Your task to perform on an android device: change the clock display to show seconds Image 0: 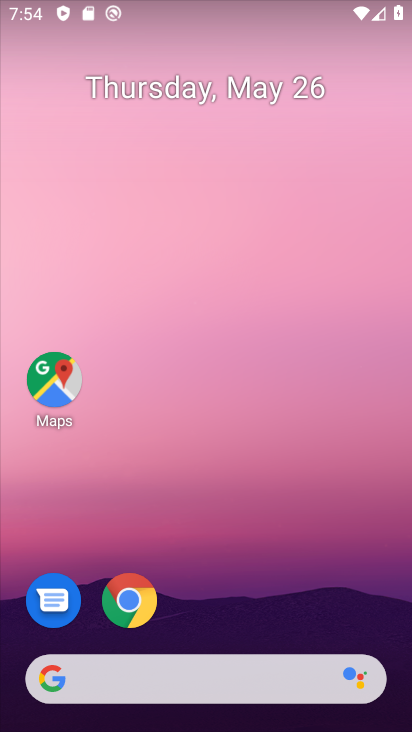
Step 0: click (180, 667)
Your task to perform on an android device: change the clock display to show seconds Image 1: 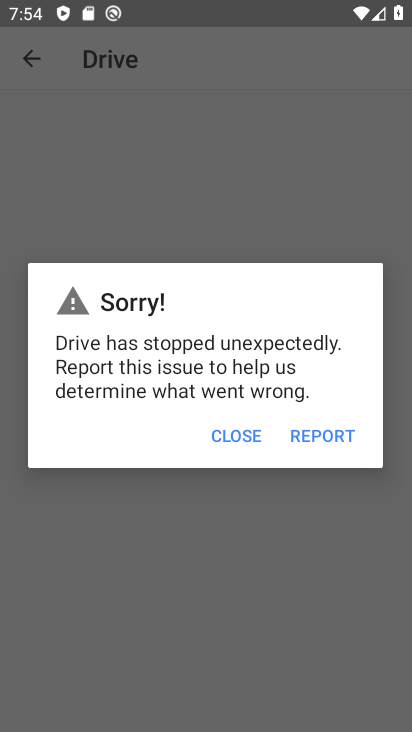
Step 1: press home button
Your task to perform on an android device: change the clock display to show seconds Image 2: 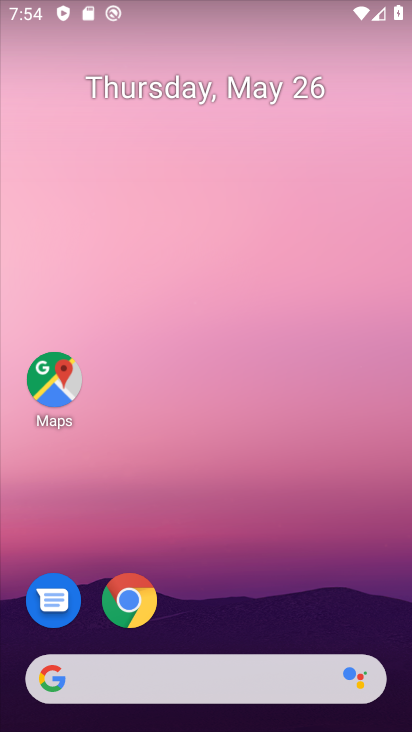
Step 2: drag from (293, 604) to (224, 75)
Your task to perform on an android device: change the clock display to show seconds Image 3: 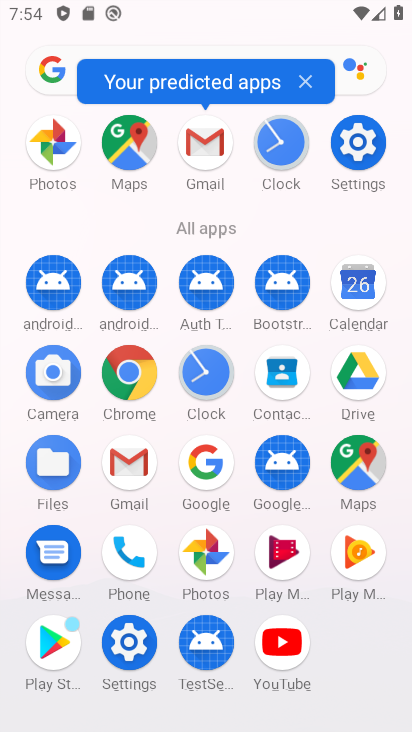
Step 3: click (265, 153)
Your task to perform on an android device: change the clock display to show seconds Image 4: 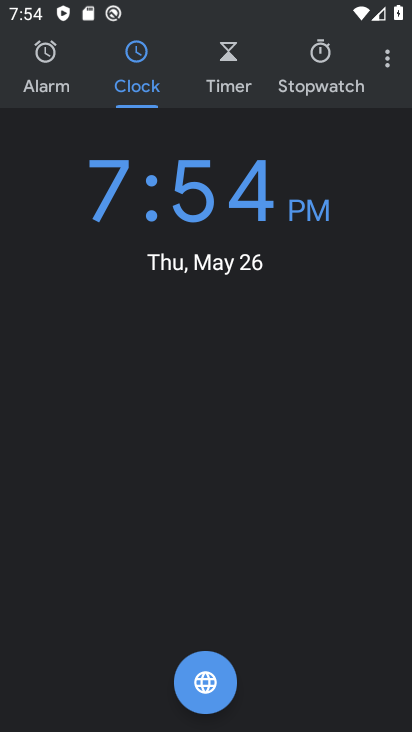
Step 4: click (393, 55)
Your task to perform on an android device: change the clock display to show seconds Image 5: 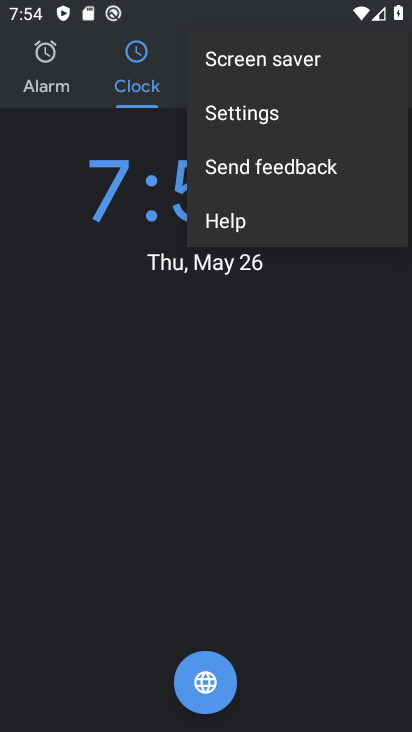
Step 5: click (277, 112)
Your task to perform on an android device: change the clock display to show seconds Image 6: 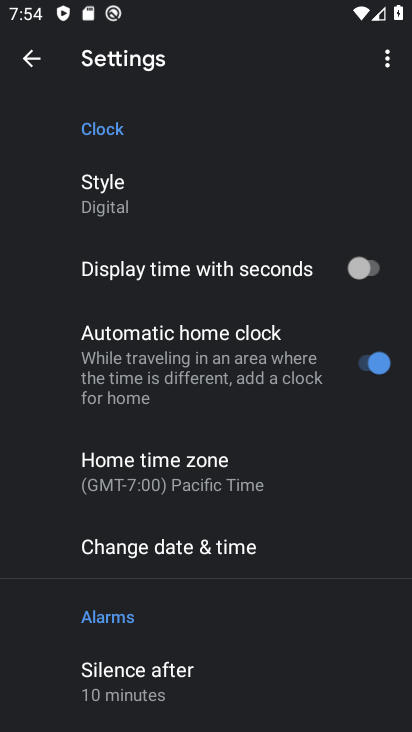
Step 6: click (355, 272)
Your task to perform on an android device: change the clock display to show seconds Image 7: 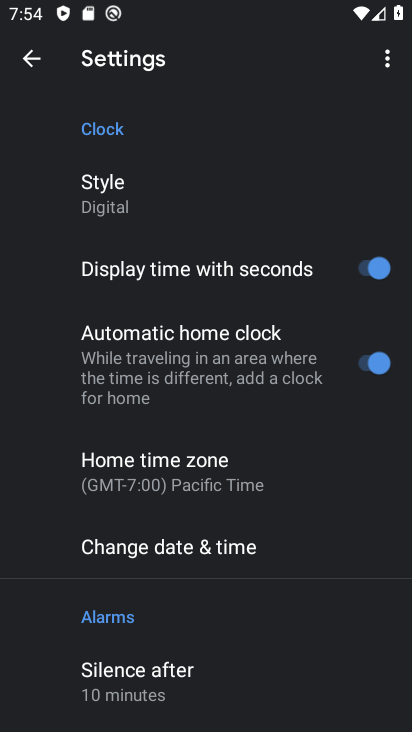
Step 7: task complete